Your task to perform on an android device: Search for "rayovac triple a" on target.com, select the first entry, add it to the cart, then select checkout. Image 0: 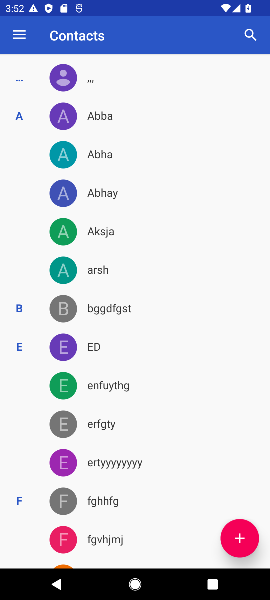
Step 0: press home button
Your task to perform on an android device: Search for "rayovac triple a" on target.com, select the first entry, add it to the cart, then select checkout. Image 1: 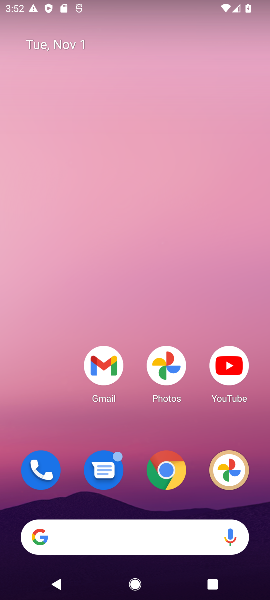
Step 1: click (174, 468)
Your task to perform on an android device: Search for "rayovac triple a" on target.com, select the first entry, add it to the cart, then select checkout. Image 2: 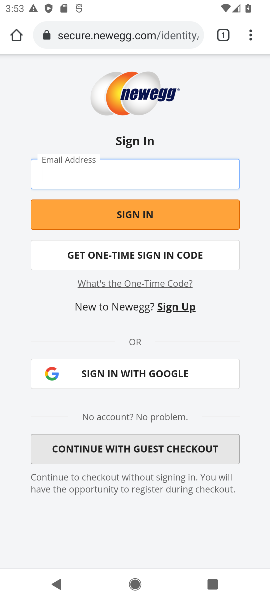
Step 2: click (157, 38)
Your task to perform on an android device: Search for "rayovac triple a" on target.com, select the first entry, add it to the cart, then select checkout. Image 3: 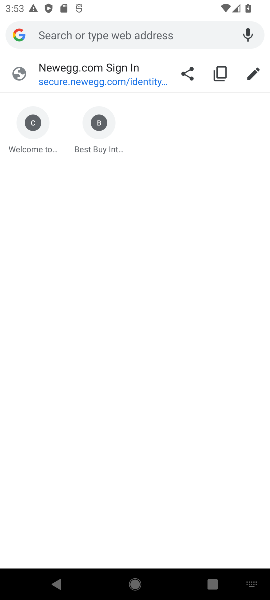
Step 3: type "target.com"
Your task to perform on an android device: Search for "rayovac triple a" on target.com, select the first entry, add it to the cart, then select checkout. Image 4: 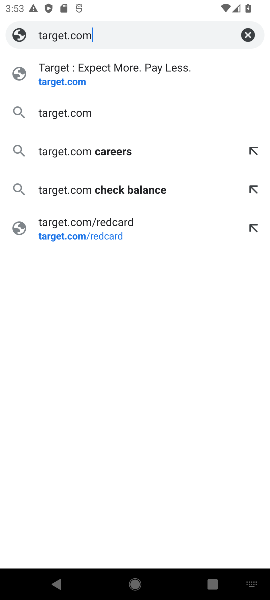
Step 4: press enter
Your task to perform on an android device: Search for "rayovac triple a" on target.com, select the first entry, add it to the cart, then select checkout. Image 5: 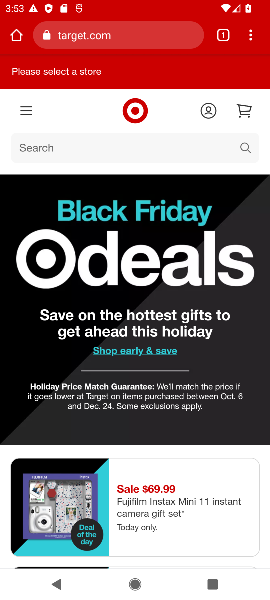
Step 5: click (80, 147)
Your task to perform on an android device: Search for "rayovac triple a" on target.com, select the first entry, add it to the cart, then select checkout. Image 6: 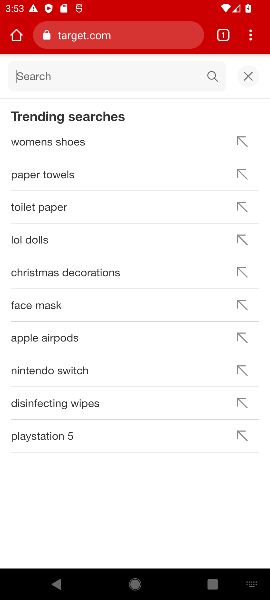
Step 6: type "ayovac triple a"
Your task to perform on an android device: Search for "rayovac triple a" on target.com, select the first entry, add it to the cart, then select checkout. Image 7: 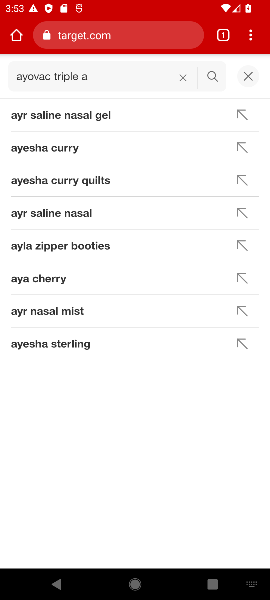
Step 7: press enter
Your task to perform on an android device: Search for "rayovac triple a" on target.com, select the first entry, add it to the cart, then select checkout. Image 8: 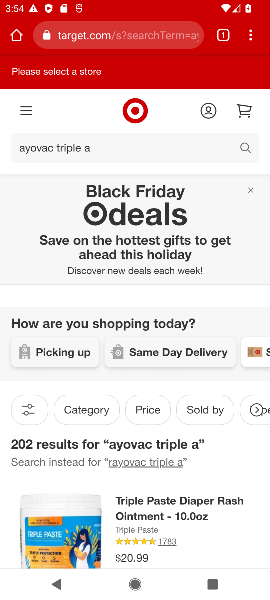
Step 8: click (213, 151)
Your task to perform on an android device: Search for "rayovac triple a" on target.com, select the first entry, add it to the cart, then select checkout. Image 9: 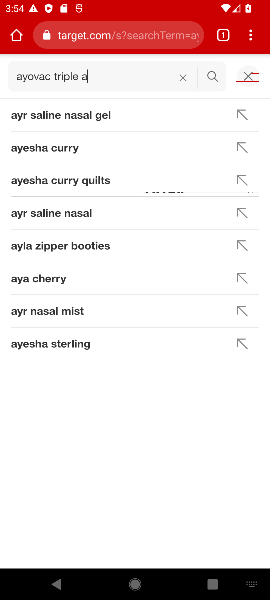
Step 9: click (182, 77)
Your task to perform on an android device: Search for "rayovac triple a" on target.com, select the first entry, add it to the cart, then select checkout. Image 10: 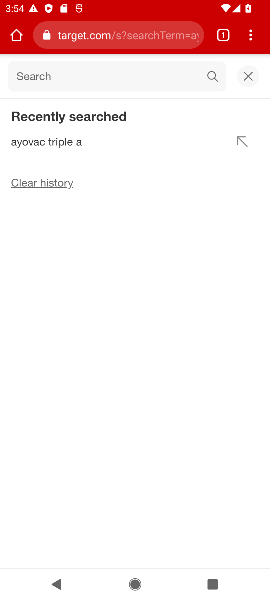
Step 10: type "rayovac triple a"
Your task to perform on an android device: Search for "rayovac triple a" on target.com, select the first entry, add it to the cart, then select checkout. Image 11: 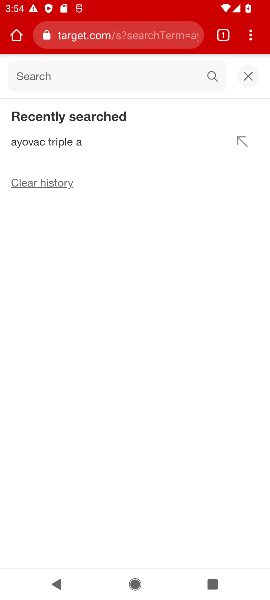
Step 11: click (77, 81)
Your task to perform on an android device: Search for "rayovac triple a" on target.com, select the first entry, add it to the cart, then select checkout. Image 12: 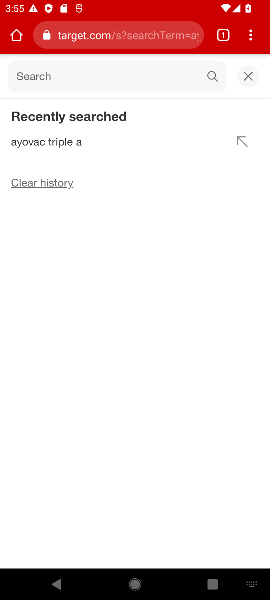
Step 12: type "rayovac triple a"
Your task to perform on an android device: Search for "rayovac triple a" on target.com, select the first entry, add it to the cart, then select checkout. Image 13: 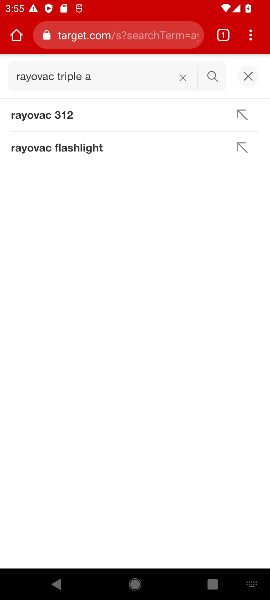
Step 13: press enter
Your task to perform on an android device: Search for "rayovac triple a" on target.com, select the first entry, add it to the cart, then select checkout. Image 14: 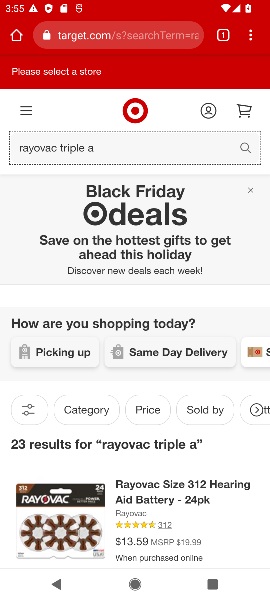
Step 14: click (66, 508)
Your task to perform on an android device: Search for "rayovac triple a" on target.com, select the first entry, add it to the cart, then select checkout. Image 15: 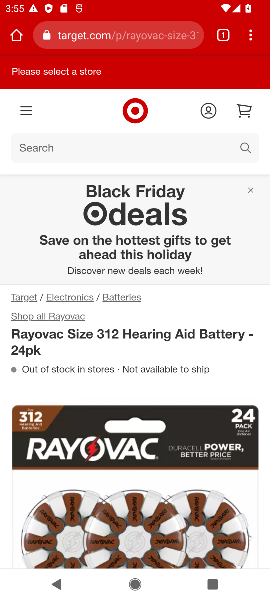
Step 15: drag from (191, 401) to (159, 58)
Your task to perform on an android device: Search for "rayovac triple a" on target.com, select the first entry, add it to the cart, then select checkout. Image 16: 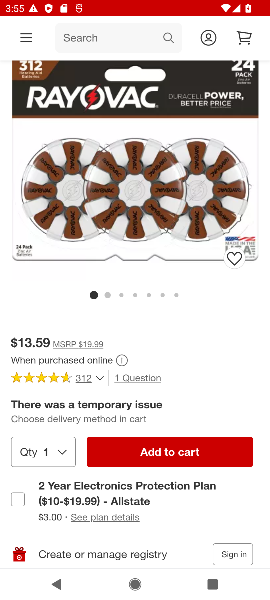
Step 16: click (184, 451)
Your task to perform on an android device: Search for "rayovac triple a" on target.com, select the first entry, add it to the cart, then select checkout. Image 17: 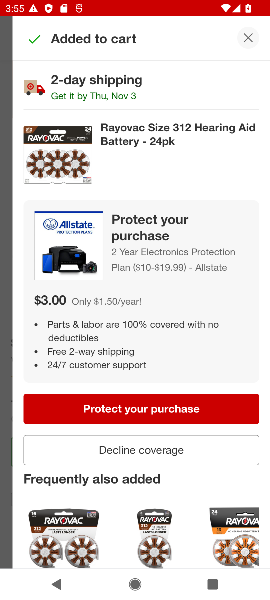
Step 17: click (153, 451)
Your task to perform on an android device: Search for "rayovac triple a" on target.com, select the first entry, add it to the cart, then select checkout. Image 18: 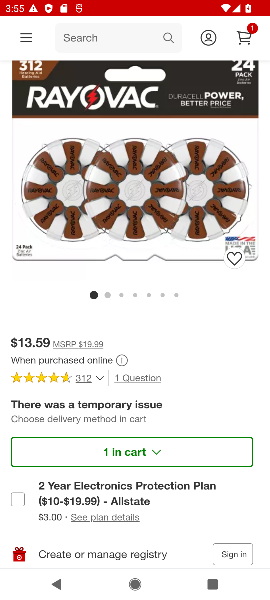
Step 18: click (245, 34)
Your task to perform on an android device: Search for "rayovac triple a" on target.com, select the first entry, add it to the cart, then select checkout. Image 19: 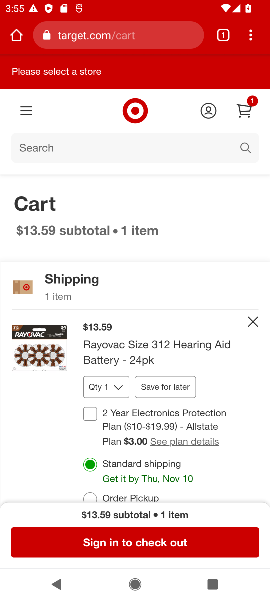
Step 19: click (131, 544)
Your task to perform on an android device: Search for "rayovac triple a" on target.com, select the first entry, add it to the cart, then select checkout. Image 20: 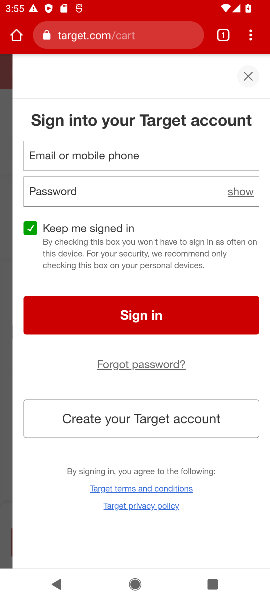
Step 20: task complete